Your task to perform on an android device: Open Reddit.com Image 0: 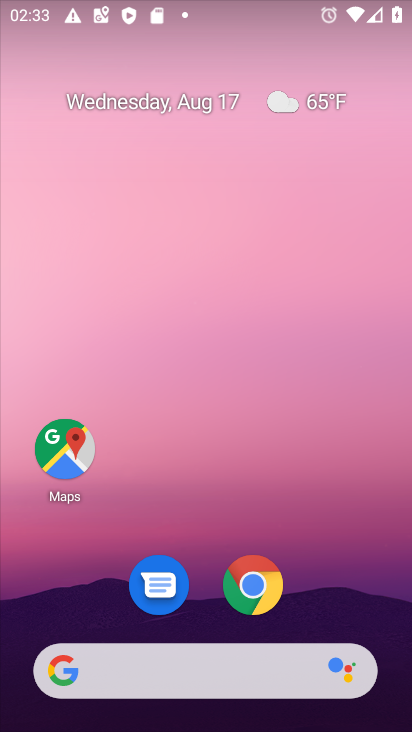
Step 0: click (219, 674)
Your task to perform on an android device: Open Reddit.com Image 1: 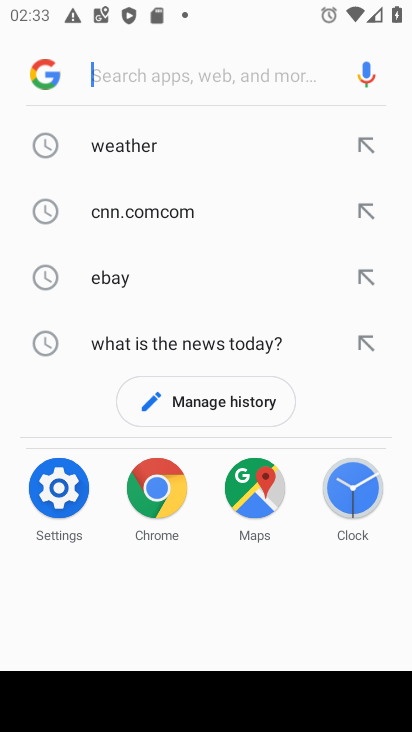
Step 1: type "reddit.com"
Your task to perform on an android device: Open Reddit.com Image 2: 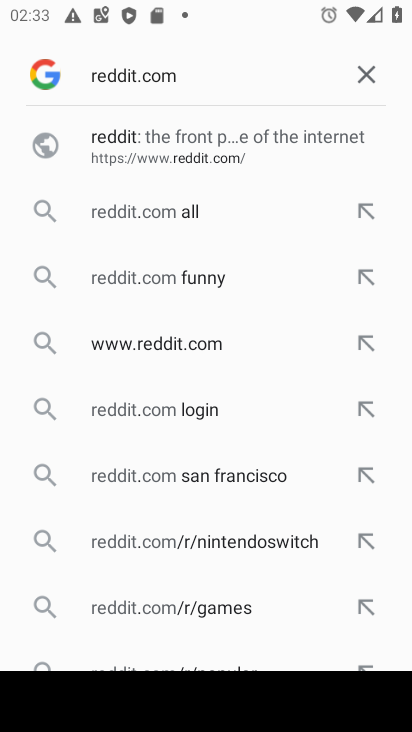
Step 2: click (170, 341)
Your task to perform on an android device: Open Reddit.com Image 3: 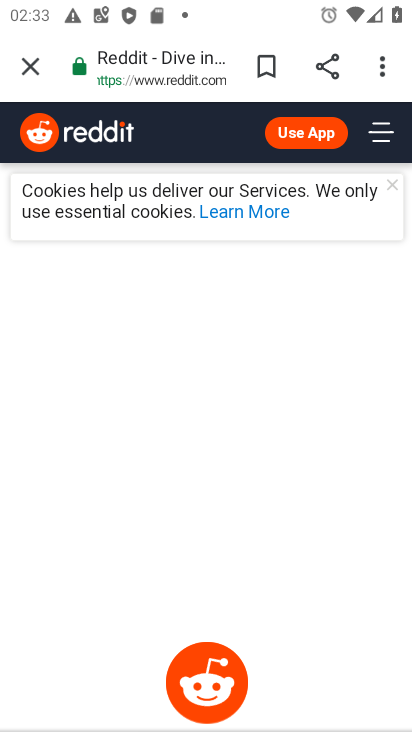
Step 3: task complete